Your task to perform on an android device: Open settings Image 0: 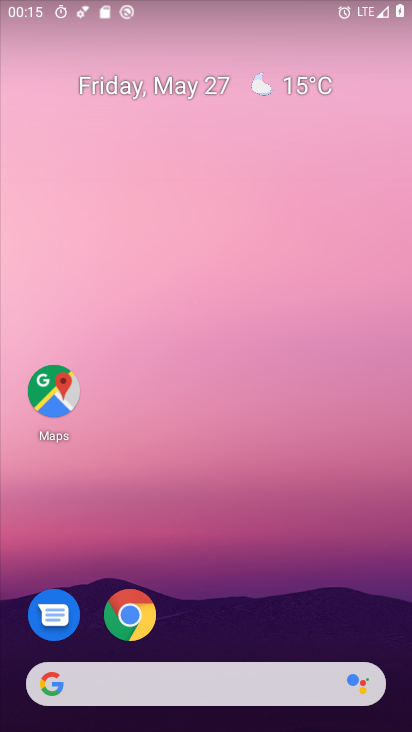
Step 0: drag from (123, 95) to (115, 39)
Your task to perform on an android device: Open settings Image 1: 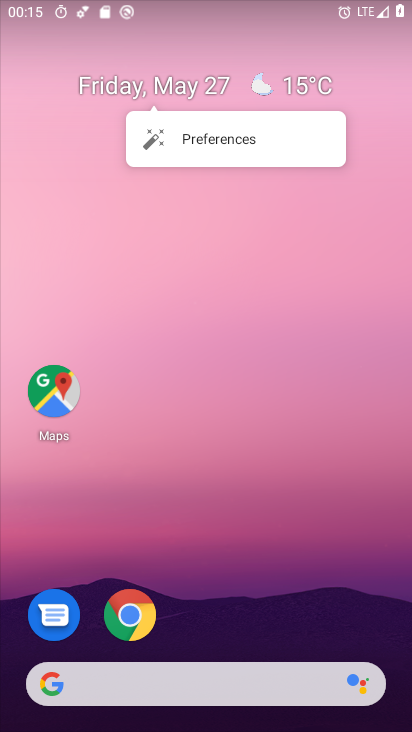
Step 1: drag from (263, 603) to (161, 53)
Your task to perform on an android device: Open settings Image 2: 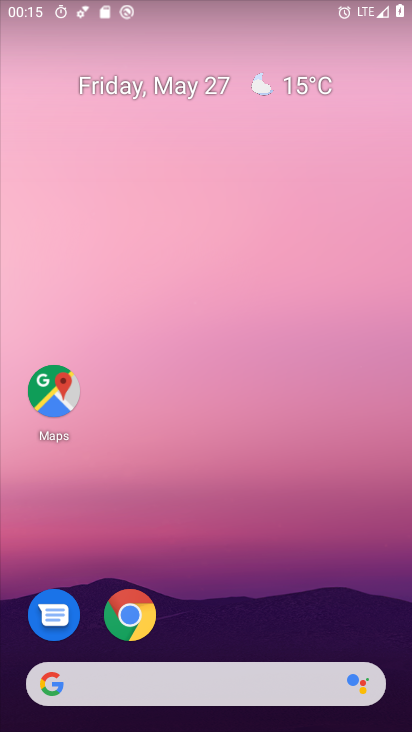
Step 2: drag from (177, 457) to (177, 66)
Your task to perform on an android device: Open settings Image 3: 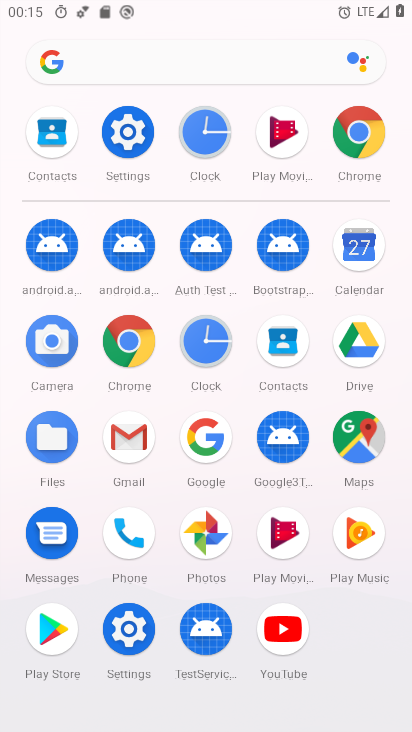
Step 3: drag from (238, 544) to (181, 5)
Your task to perform on an android device: Open settings Image 4: 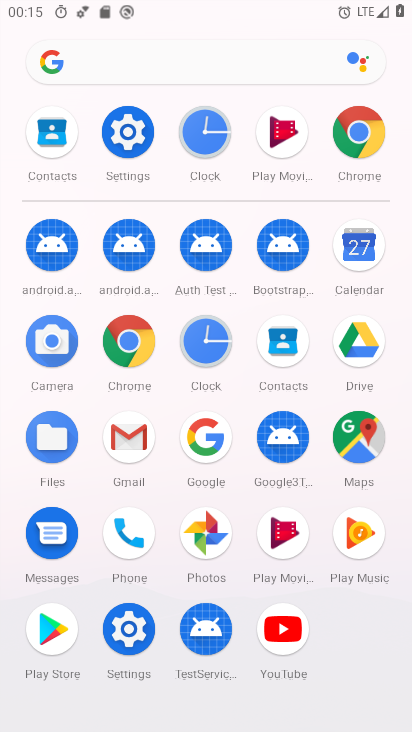
Step 4: click (124, 635)
Your task to perform on an android device: Open settings Image 5: 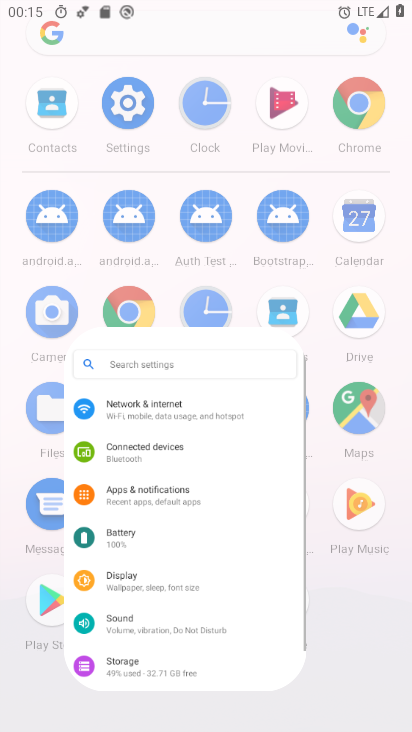
Step 5: click (124, 635)
Your task to perform on an android device: Open settings Image 6: 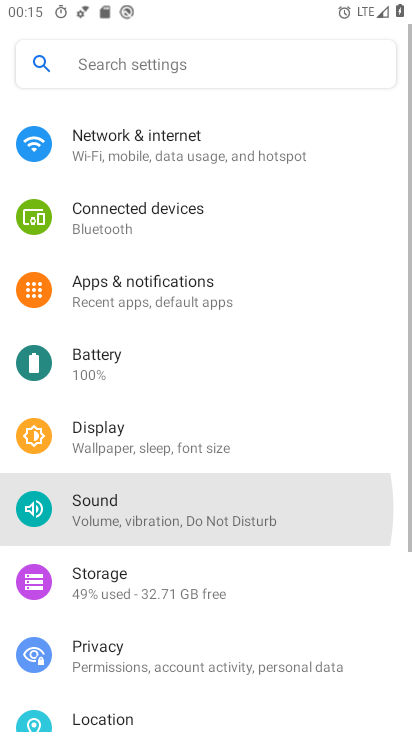
Step 6: click (125, 636)
Your task to perform on an android device: Open settings Image 7: 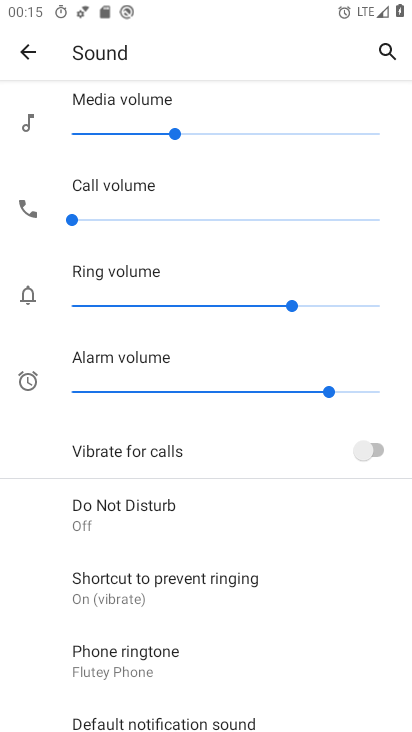
Step 7: task complete